Your task to perform on an android device: What is the recent news? Image 0: 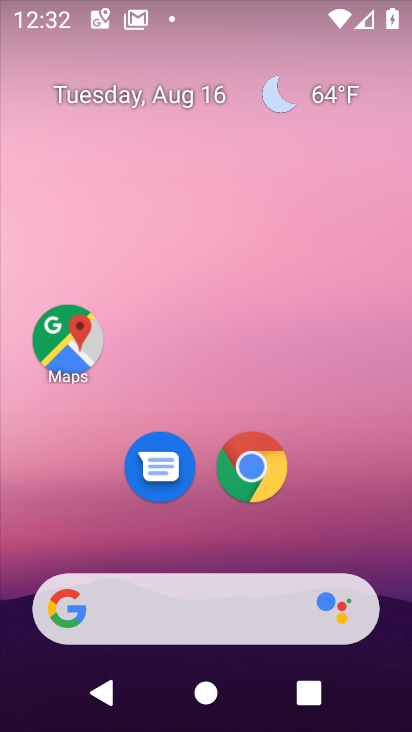
Step 0: press home button
Your task to perform on an android device: What is the recent news? Image 1: 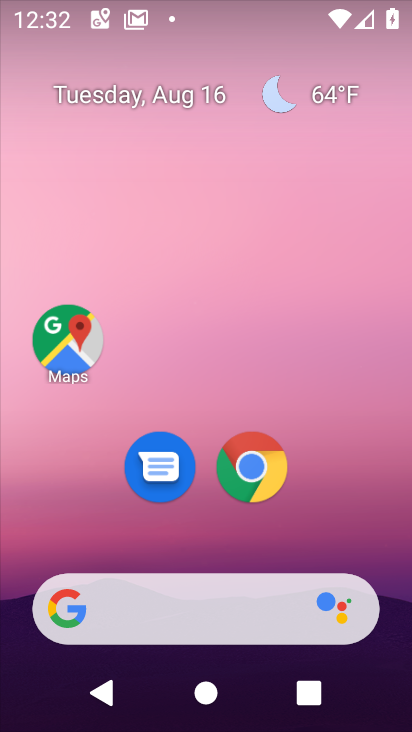
Step 1: task complete